Your task to perform on an android device: Search for vegetarian restaurants on Maps Image 0: 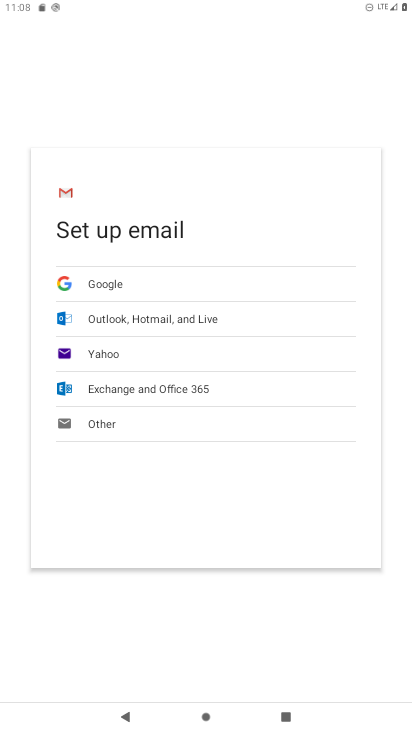
Step 0: press home button
Your task to perform on an android device: Search for vegetarian restaurants on Maps Image 1: 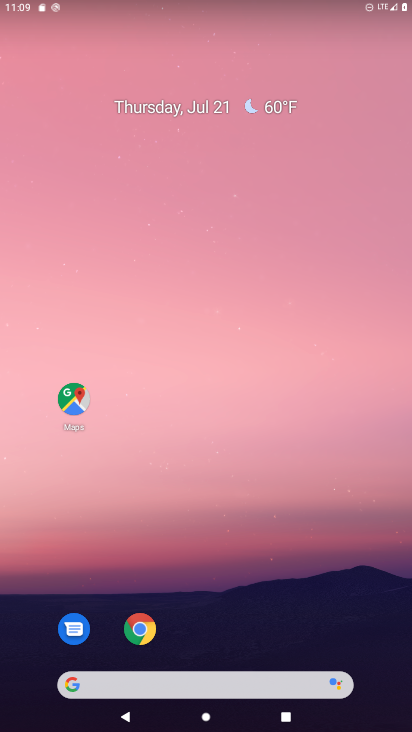
Step 1: click (76, 387)
Your task to perform on an android device: Search for vegetarian restaurants on Maps Image 2: 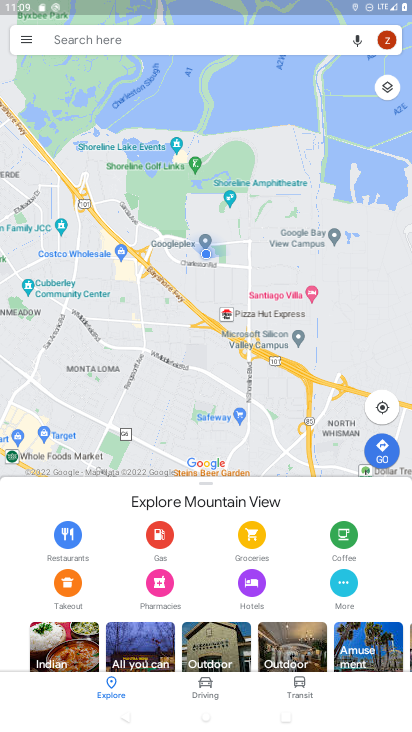
Step 2: type "vegetarian restaurants"
Your task to perform on an android device: Search for vegetarian restaurants on Maps Image 3: 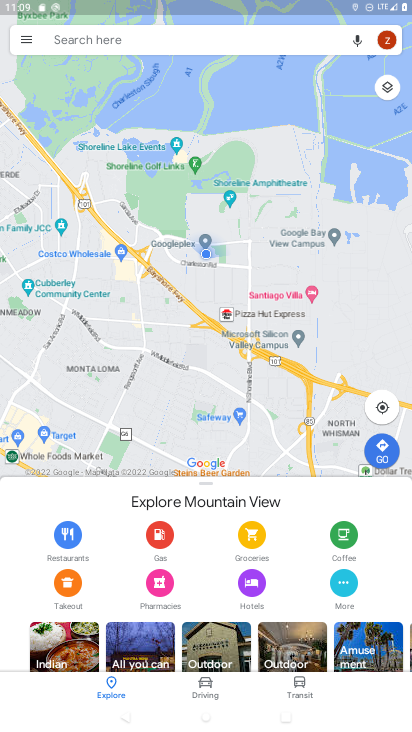
Step 3: click (82, 41)
Your task to perform on an android device: Search for vegetarian restaurants on Maps Image 4: 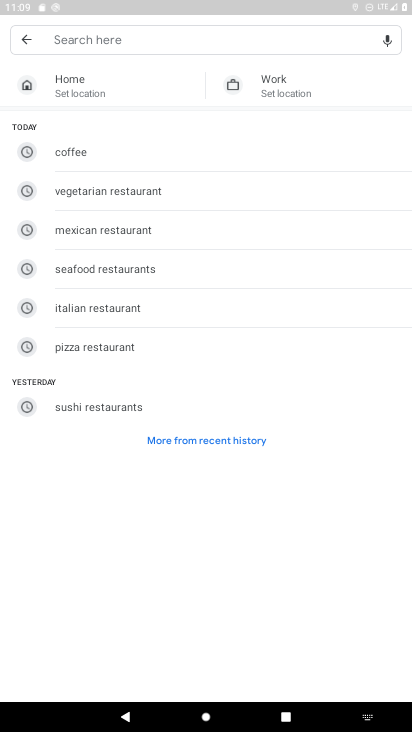
Step 4: click (104, 189)
Your task to perform on an android device: Search for vegetarian restaurants on Maps Image 5: 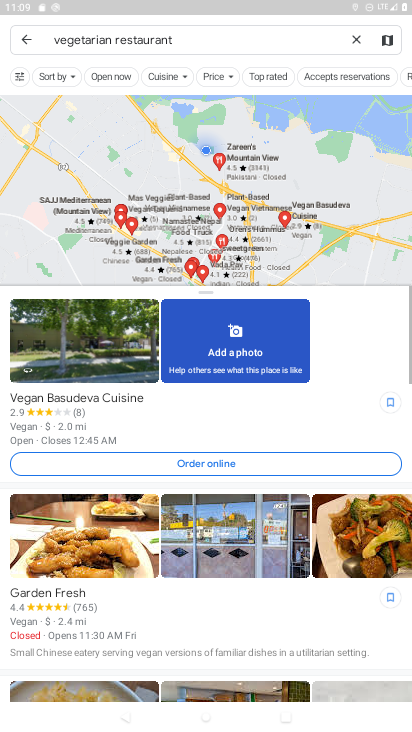
Step 5: task complete